Your task to perform on an android device: change the clock display to analog Image 0: 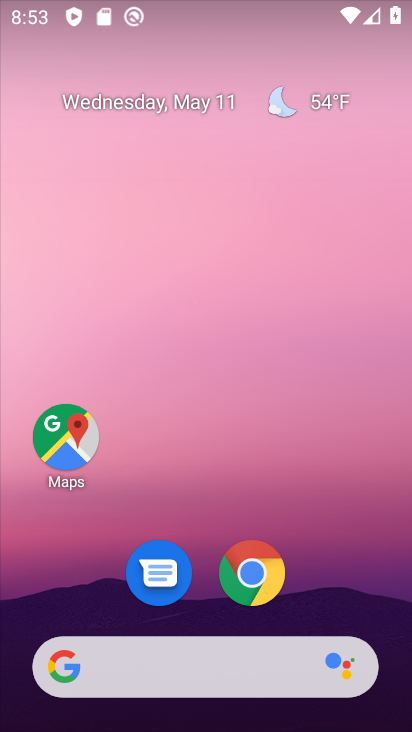
Step 0: drag from (356, 644) to (335, 15)
Your task to perform on an android device: change the clock display to analog Image 1: 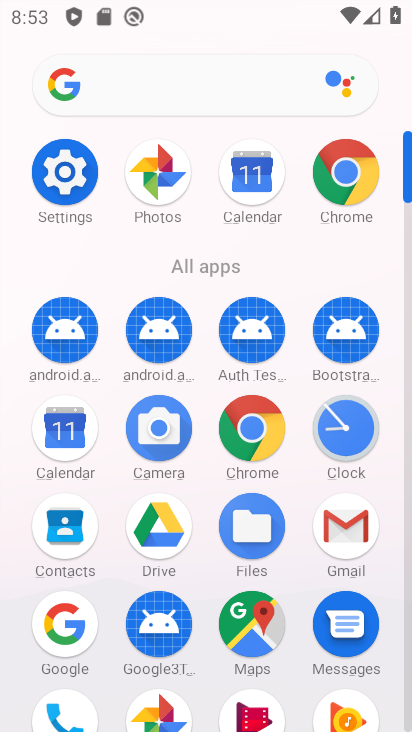
Step 1: click (345, 452)
Your task to perform on an android device: change the clock display to analog Image 2: 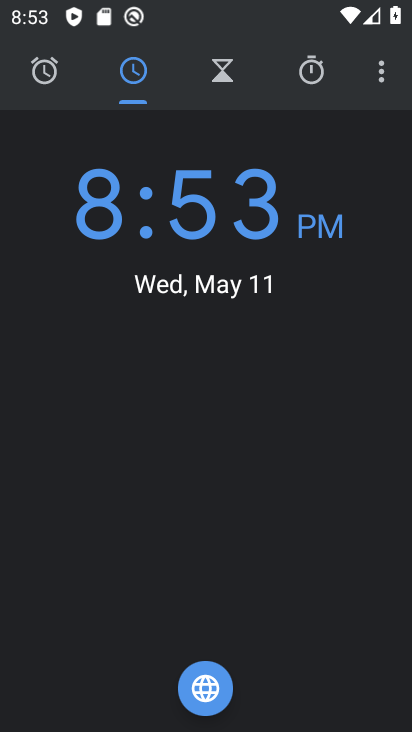
Step 2: click (375, 69)
Your task to perform on an android device: change the clock display to analog Image 3: 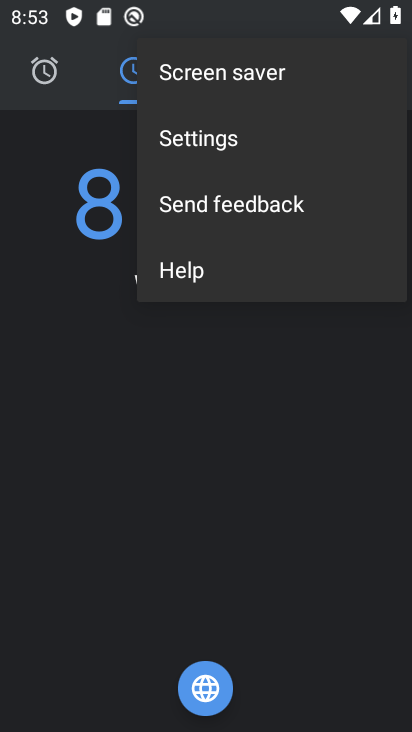
Step 3: click (241, 141)
Your task to perform on an android device: change the clock display to analog Image 4: 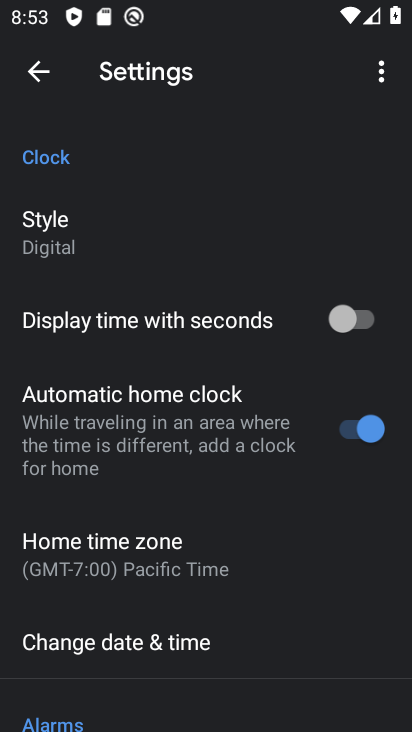
Step 4: click (68, 245)
Your task to perform on an android device: change the clock display to analog Image 5: 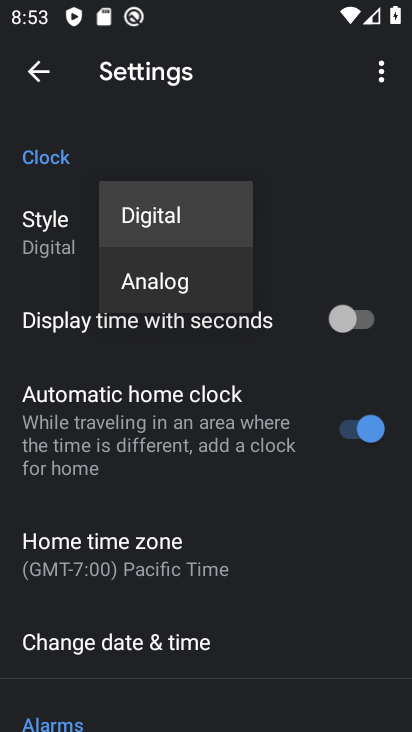
Step 5: click (121, 288)
Your task to perform on an android device: change the clock display to analog Image 6: 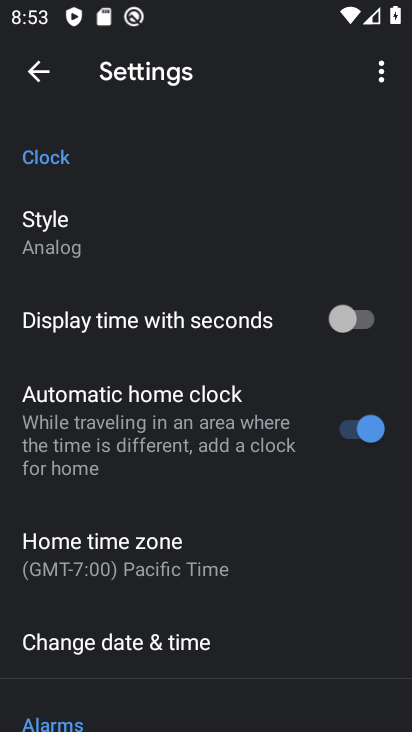
Step 6: task complete